Your task to perform on an android device: Set the phone to "Do not disturb". Image 0: 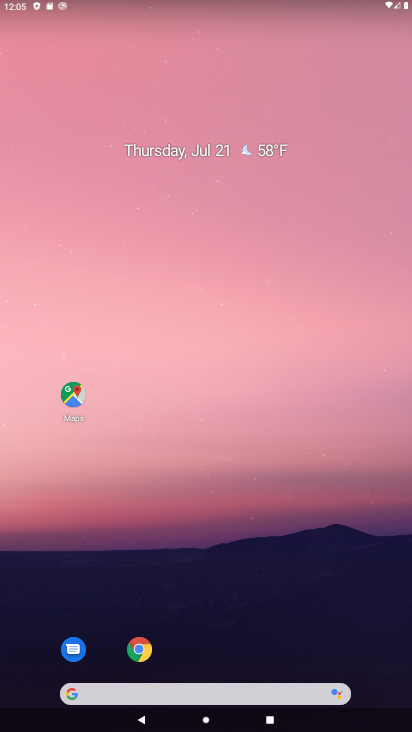
Step 0: drag from (211, 659) to (242, 216)
Your task to perform on an android device: Set the phone to "Do not disturb". Image 1: 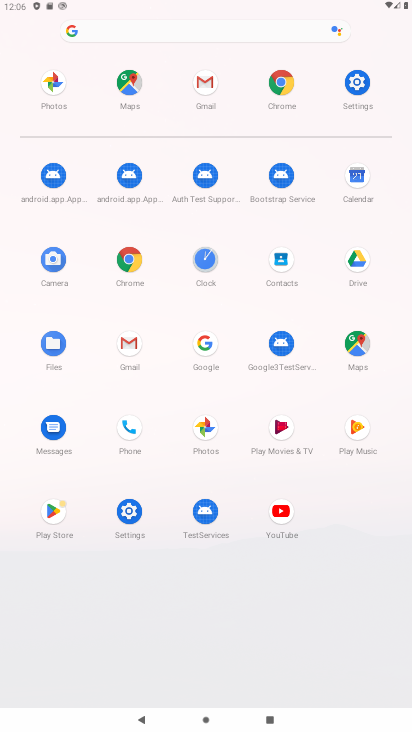
Step 1: click (358, 85)
Your task to perform on an android device: Set the phone to "Do not disturb". Image 2: 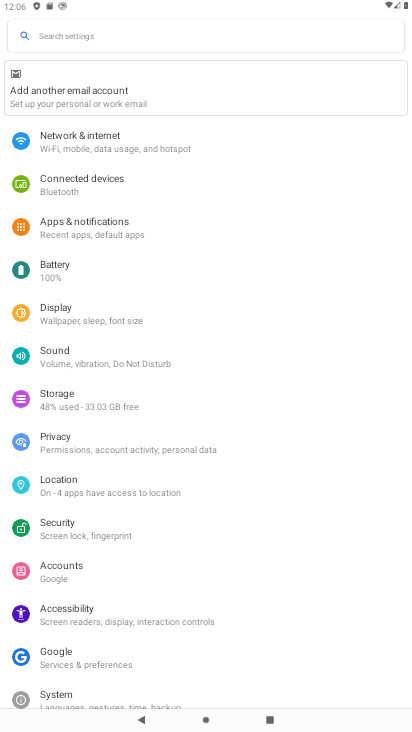
Step 2: click (188, 350)
Your task to perform on an android device: Set the phone to "Do not disturb". Image 3: 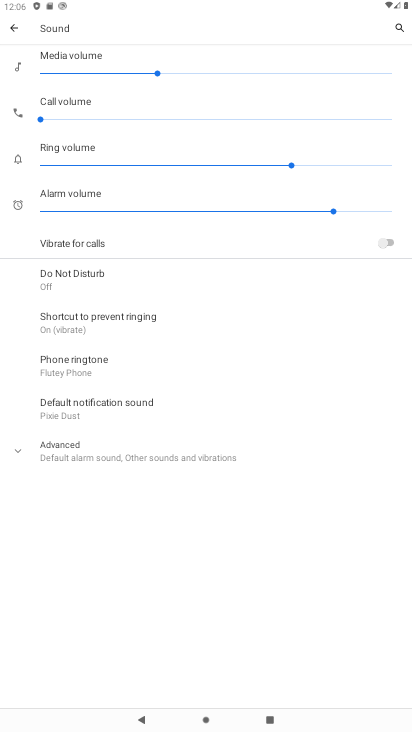
Step 3: click (128, 441)
Your task to perform on an android device: Set the phone to "Do not disturb". Image 4: 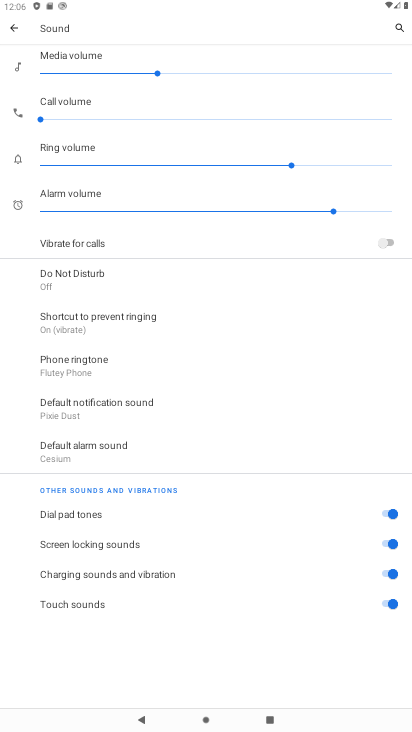
Step 4: click (104, 286)
Your task to perform on an android device: Set the phone to "Do not disturb". Image 5: 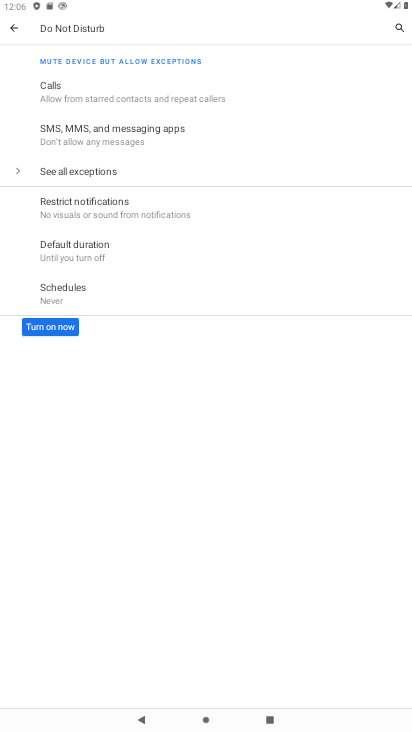
Step 5: click (63, 335)
Your task to perform on an android device: Set the phone to "Do not disturb". Image 6: 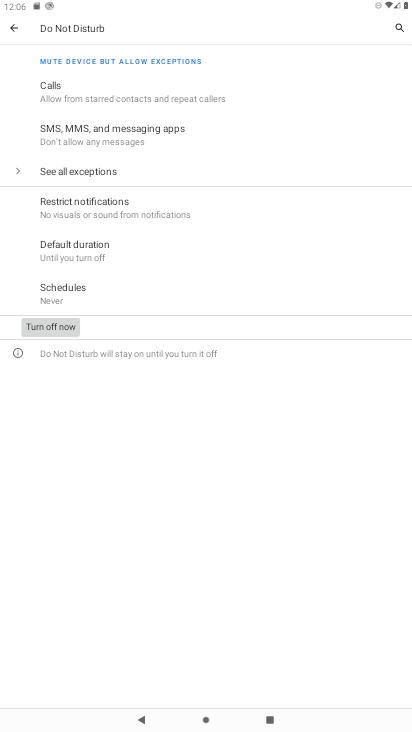
Step 6: task complete